Your task to perform on an android device: snooze an email in the gmail app Image 0: 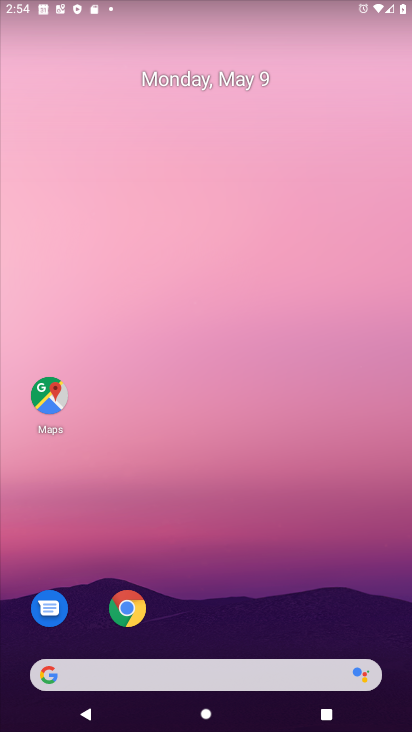
Step 0: drag from (237, 639) to (295, 224)
Your task to perform on an android device: snooze an email in the gmail app Image 1: 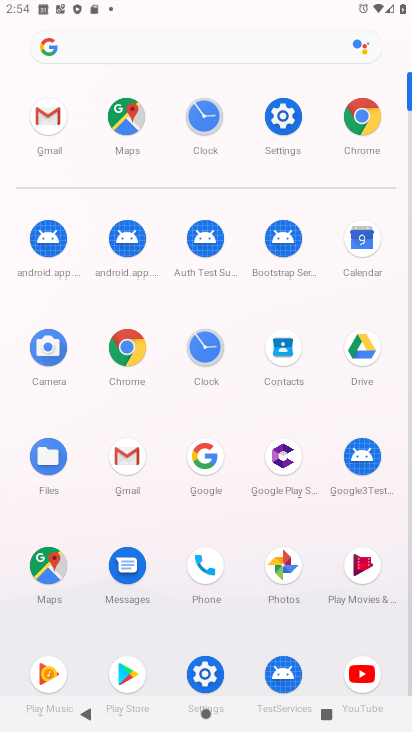
Step 1: click (44, 126)
Your task to perform on an android device: snooze an email in the gmail app Image 2: 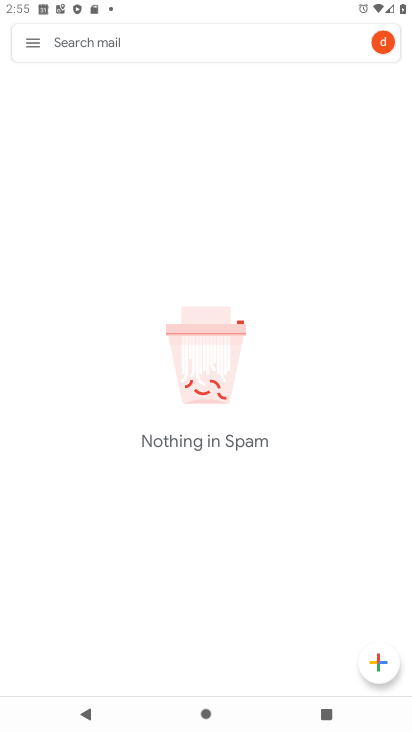
Step 2: click (35, 38)
Your task to perform on an android device: snooze an email in the gmail app Image 3: 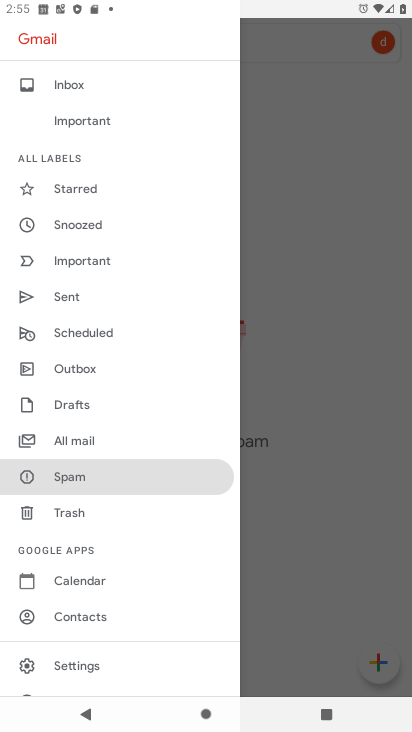
Step 3: click (85, 87)
Your task to perform on an android device: snooze an email in the gmail app Image 4: 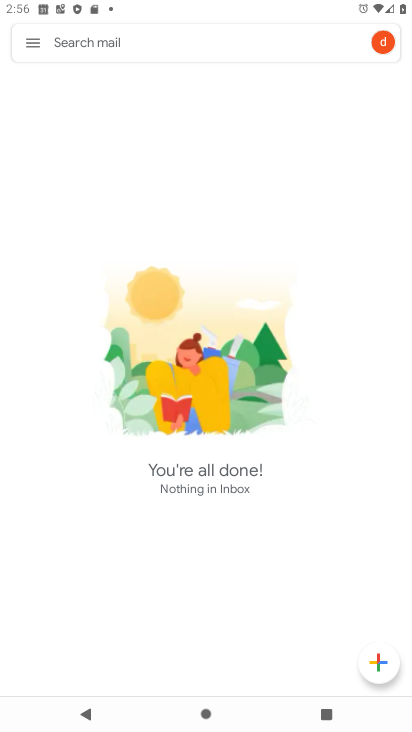
Step 4: task complete